Your task to perform on an android device: Show me recent news Image 0: 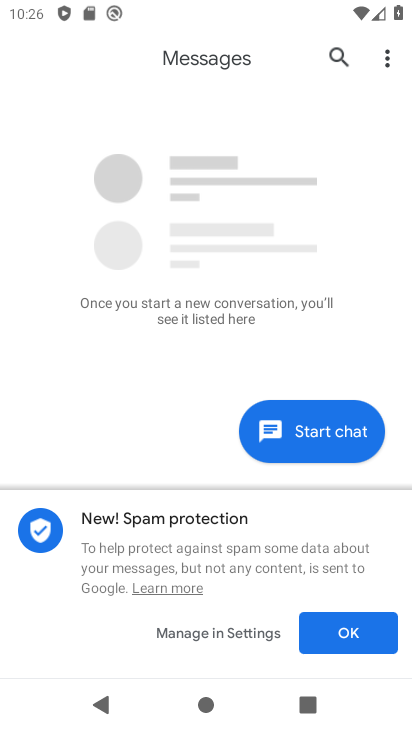
Step 0: press home button
Your task to perform on an android device: Show me recent news Image 1: 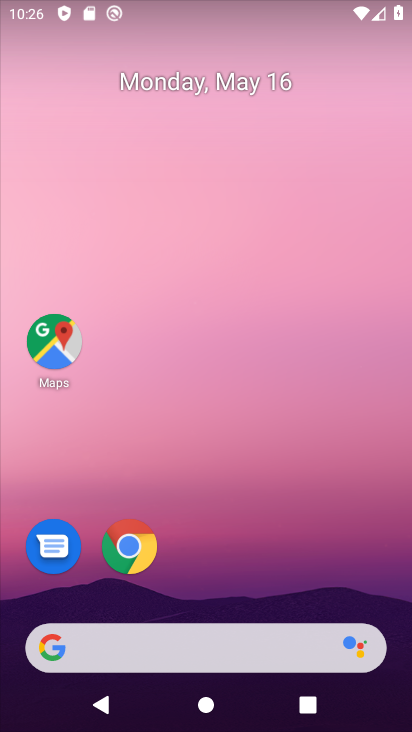
Step 1: task complete